Your task to perform on an android device: What's a good restaurant in Houston? Image 0: 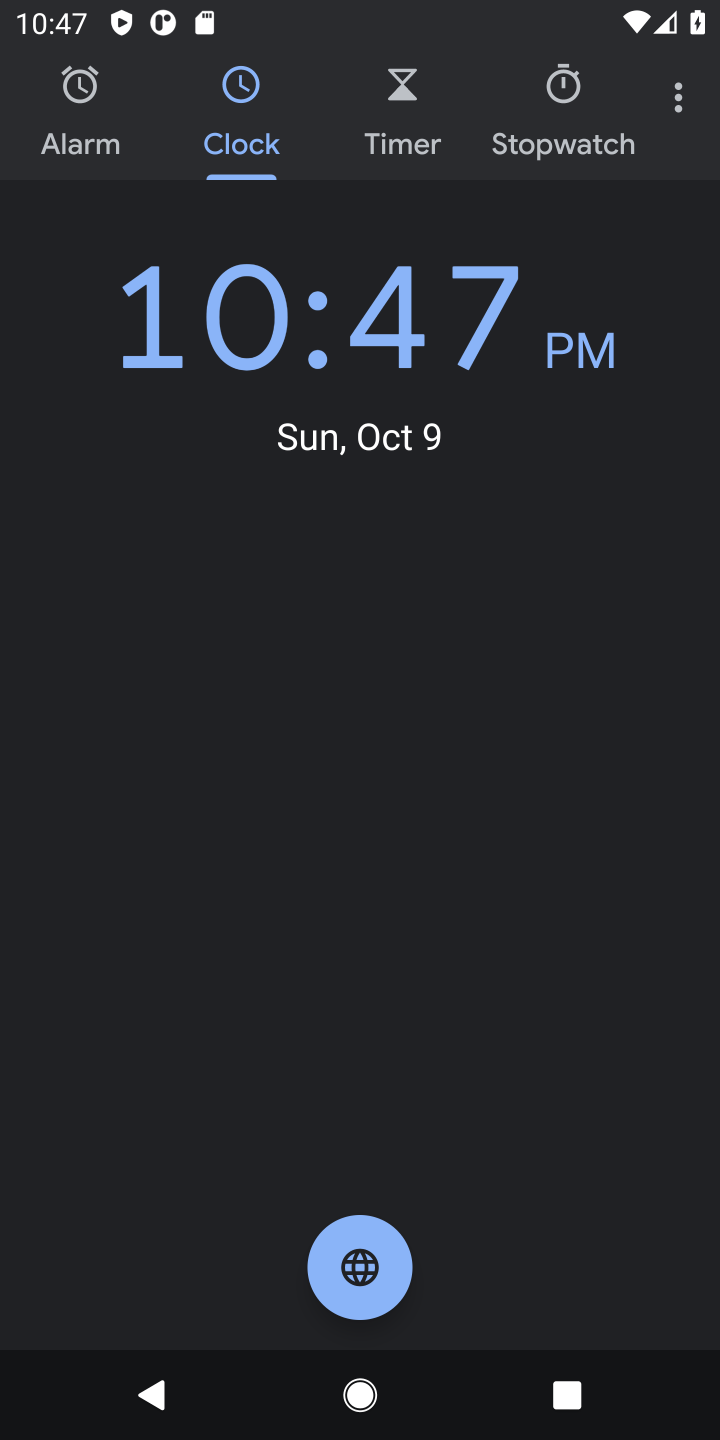
Step 0: press home button
Your task to perform on an android device: What's a good restaurant in Houston? Image 1: 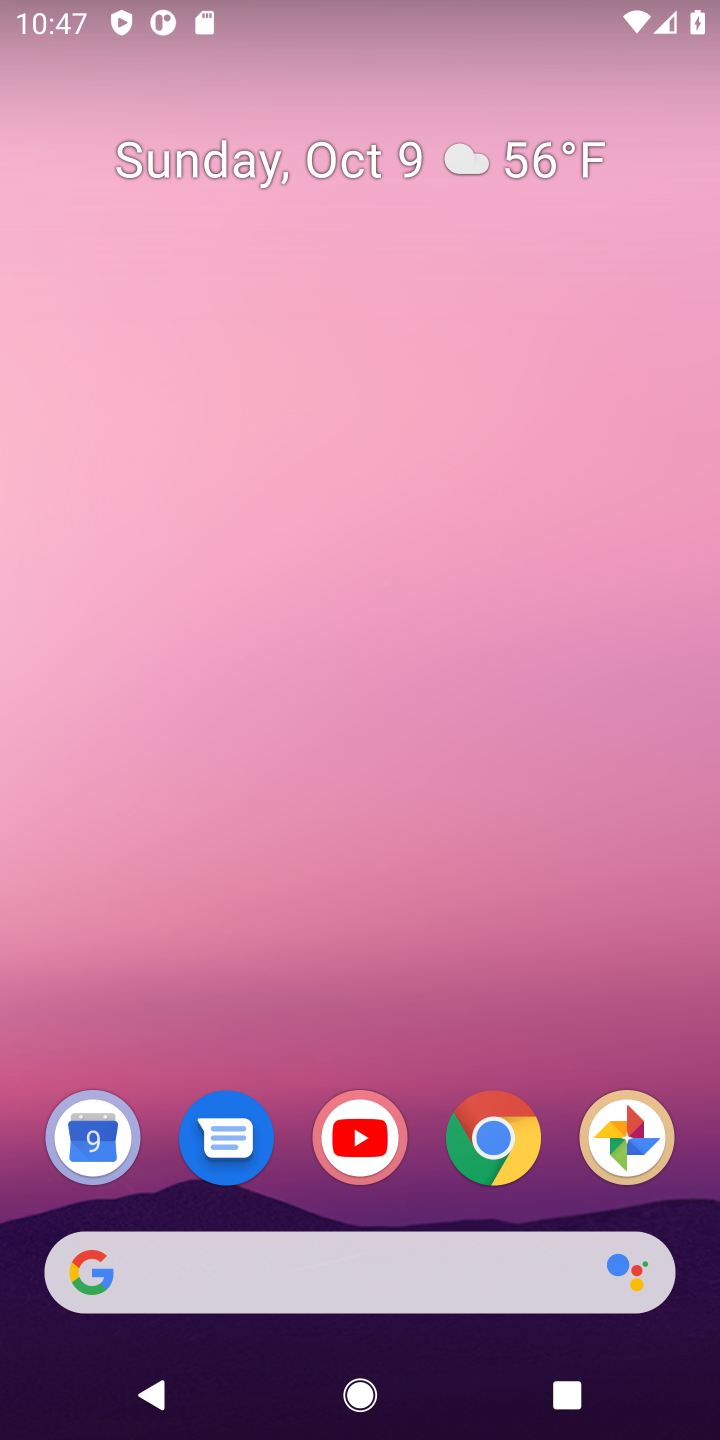
Step 1: drag from (404, 1028) to (353, 76)
Your task to perform on an android device: What's a good restaurant in Houston? Image 2: 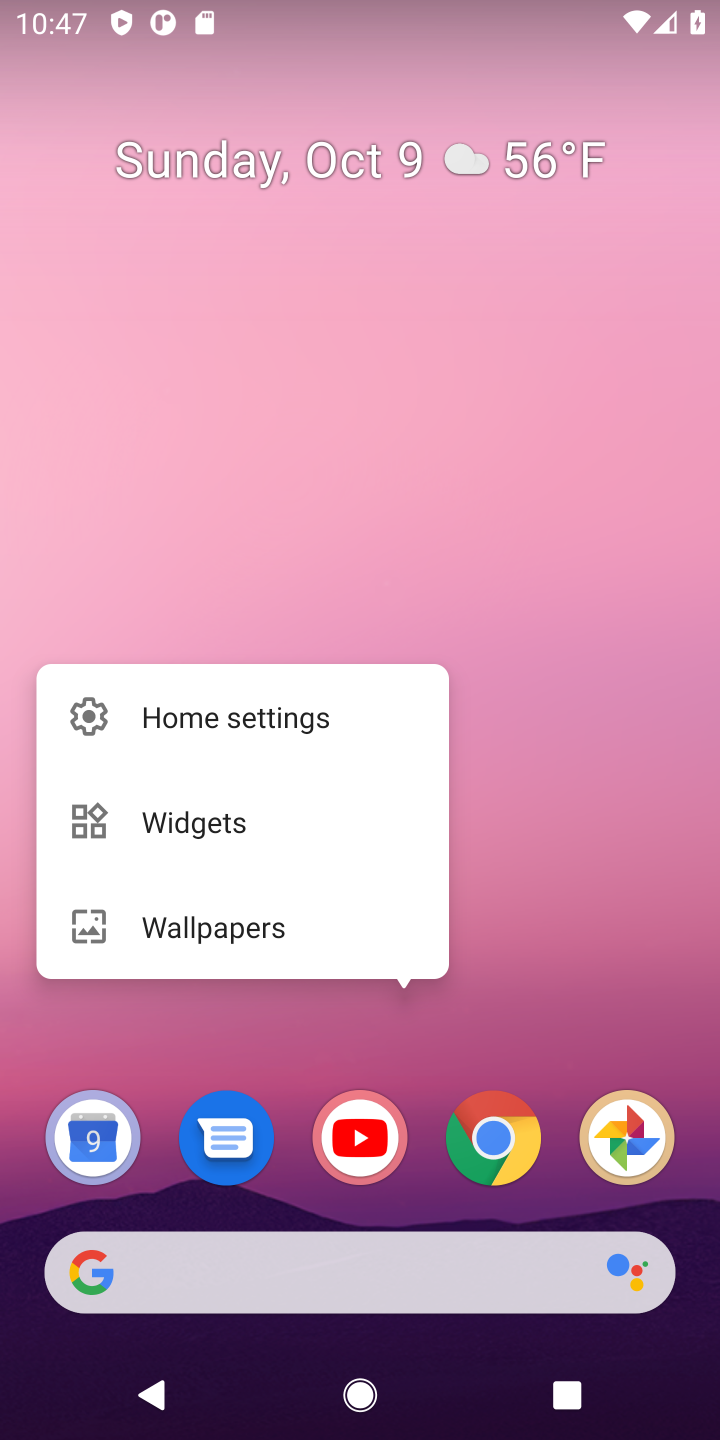
Step 2: click (498, 1001)
Your task to perform on an android device: What's a good restaurant in Houston? Image 3: 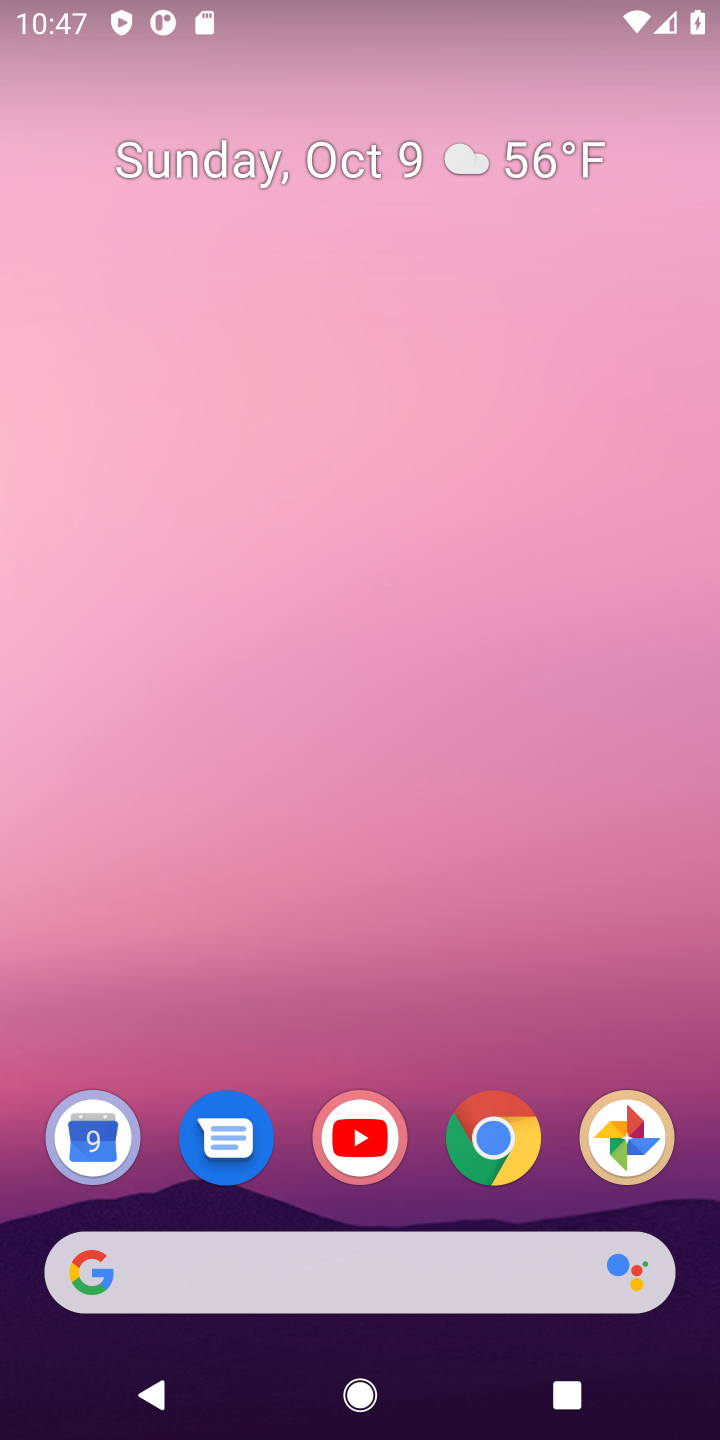
Step 3: drag from (431, 1090) to (253, 127)
Your task to perform on an android device: What's a good restaurant in Houston? Image 4: 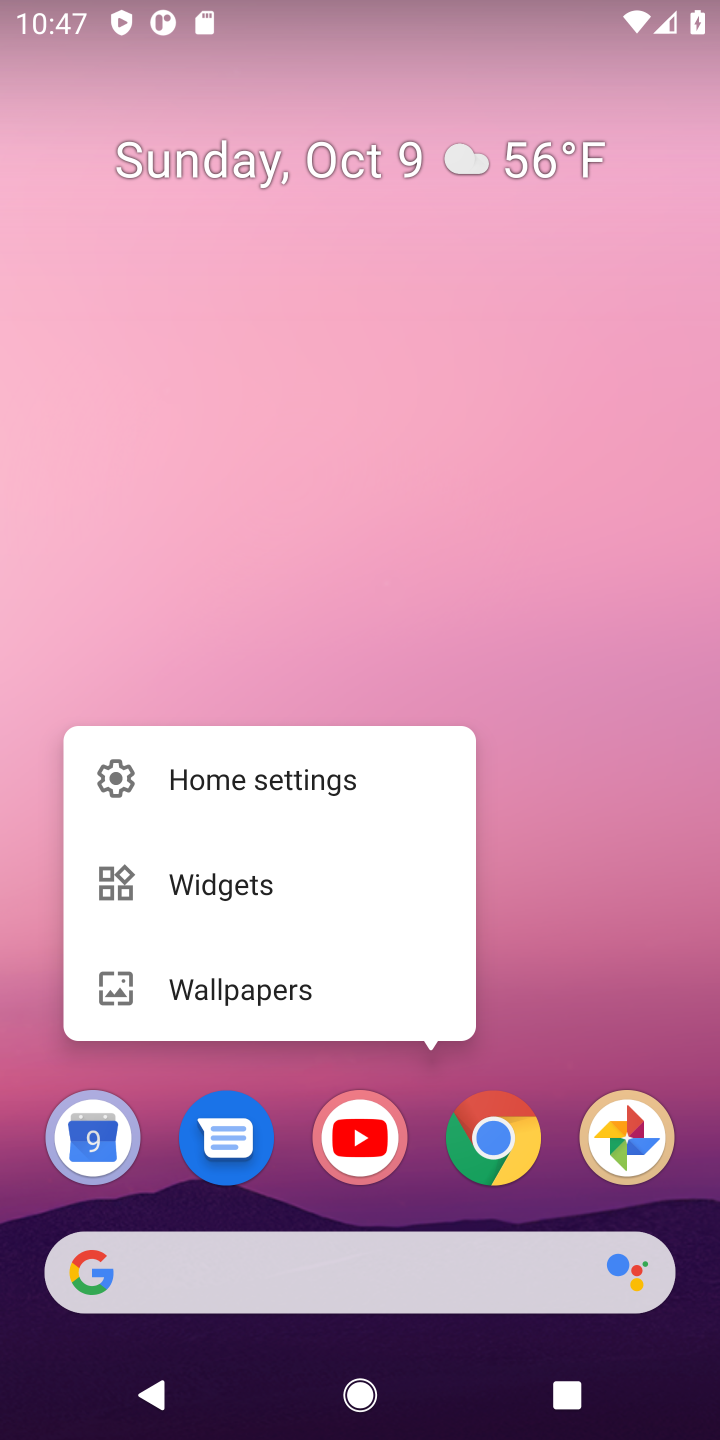
Step 4: click (434, 414)
Your task to perform on an android device: What's a good restaurant in Houston? Image 5: 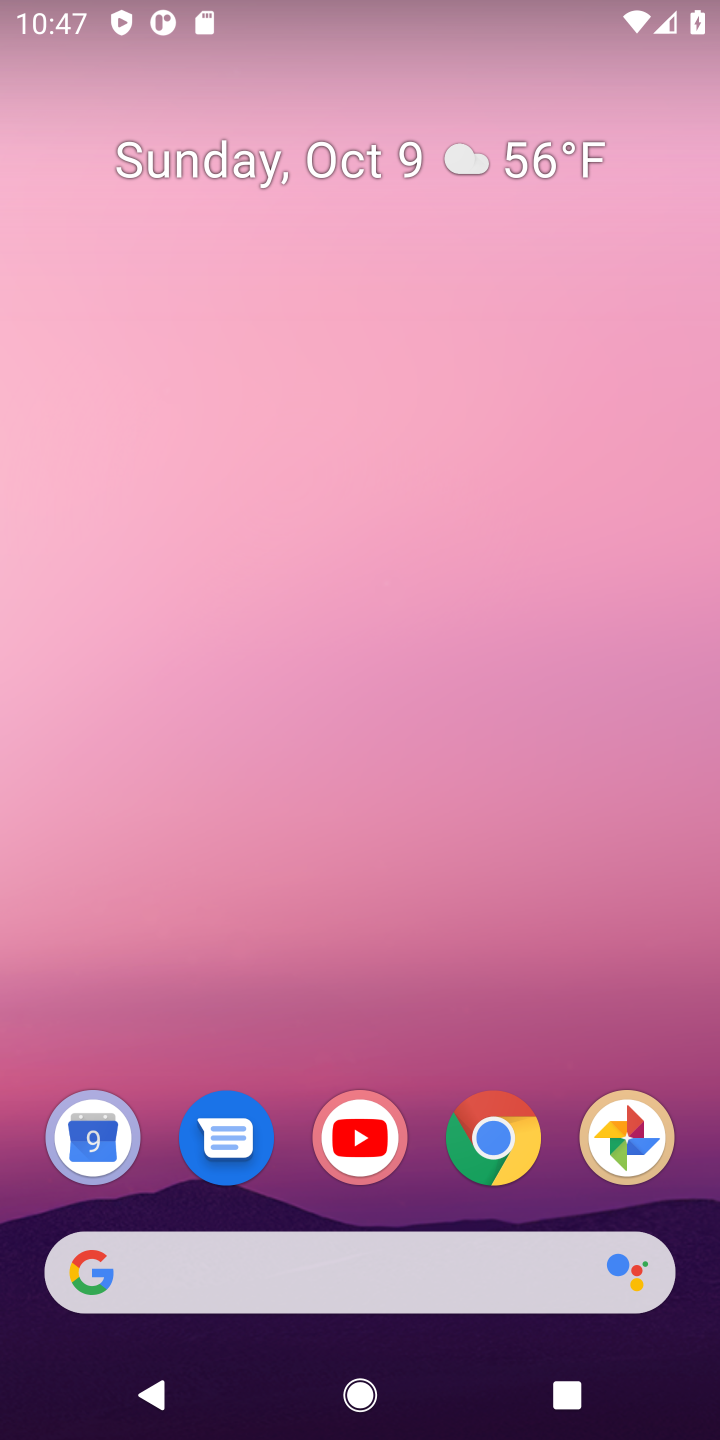
Step 5: drag from (561, 1096) to (558, 55)
Your task to perform on an android device: What's a good restaurant in Houston? Image 6: 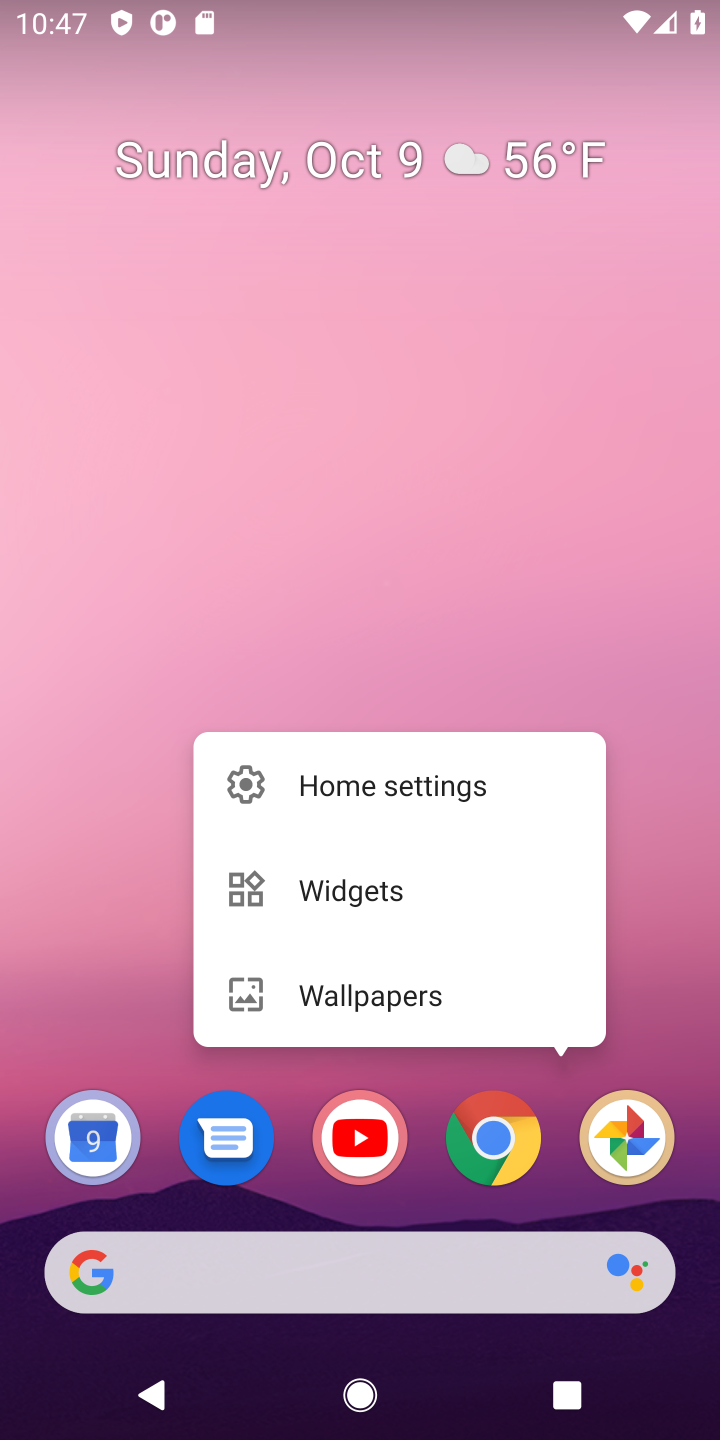
Step 6: click (649, 804)
Your task to perform on an android device: What's a good restaurant in Houston? Image 7: 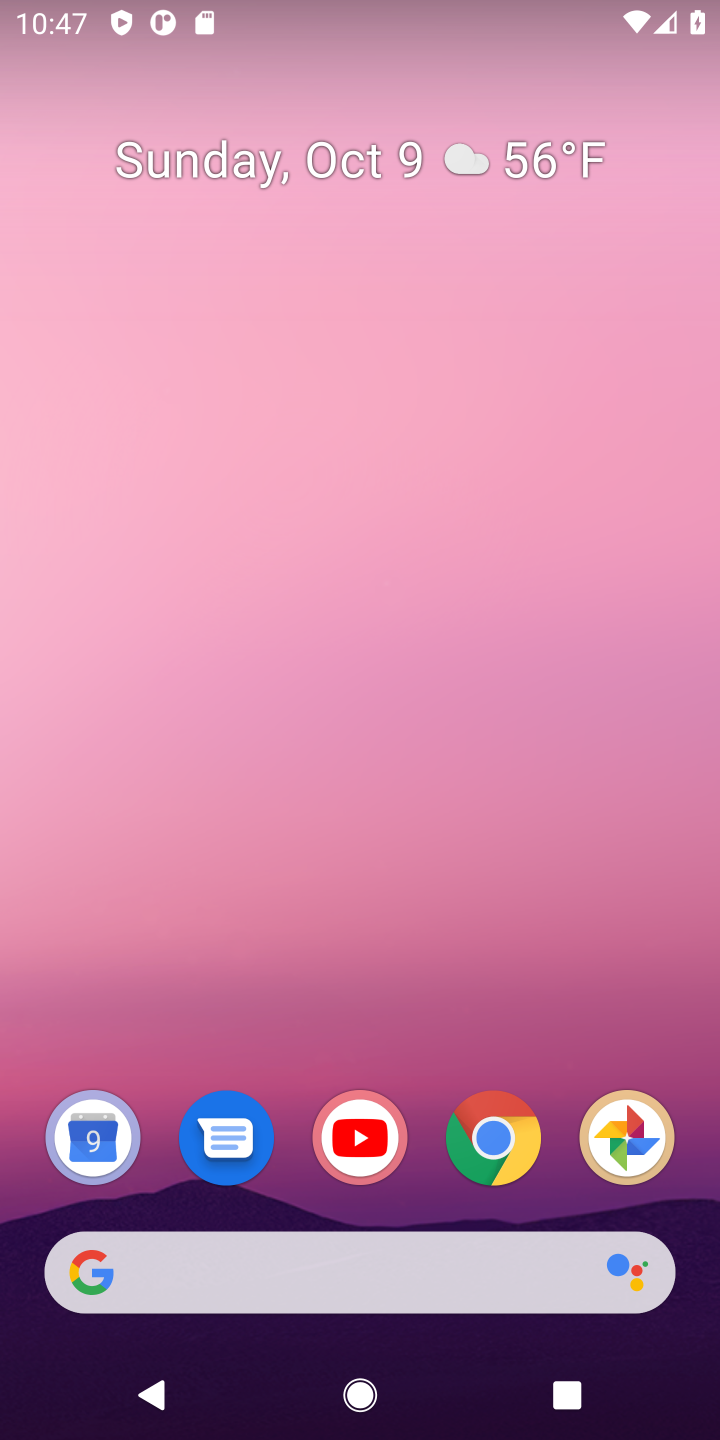
Step 7: drag from (568, 1201) to (572, 106)
Your task to perform on an android device: What's a good restaurant in Houston? Image 8: 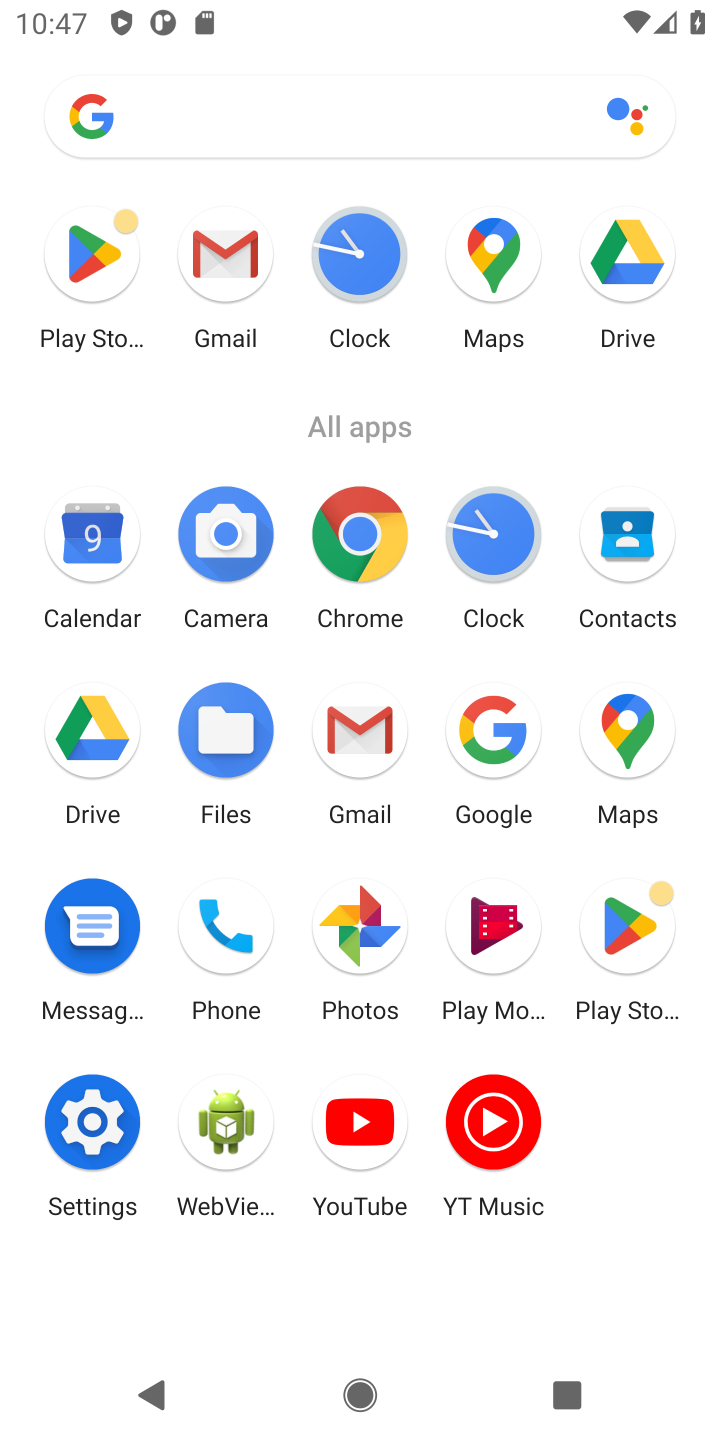
Step 8: click (347, 541)
Your task to perform on an android device: What's a good restaurant in Houston? Image 9: 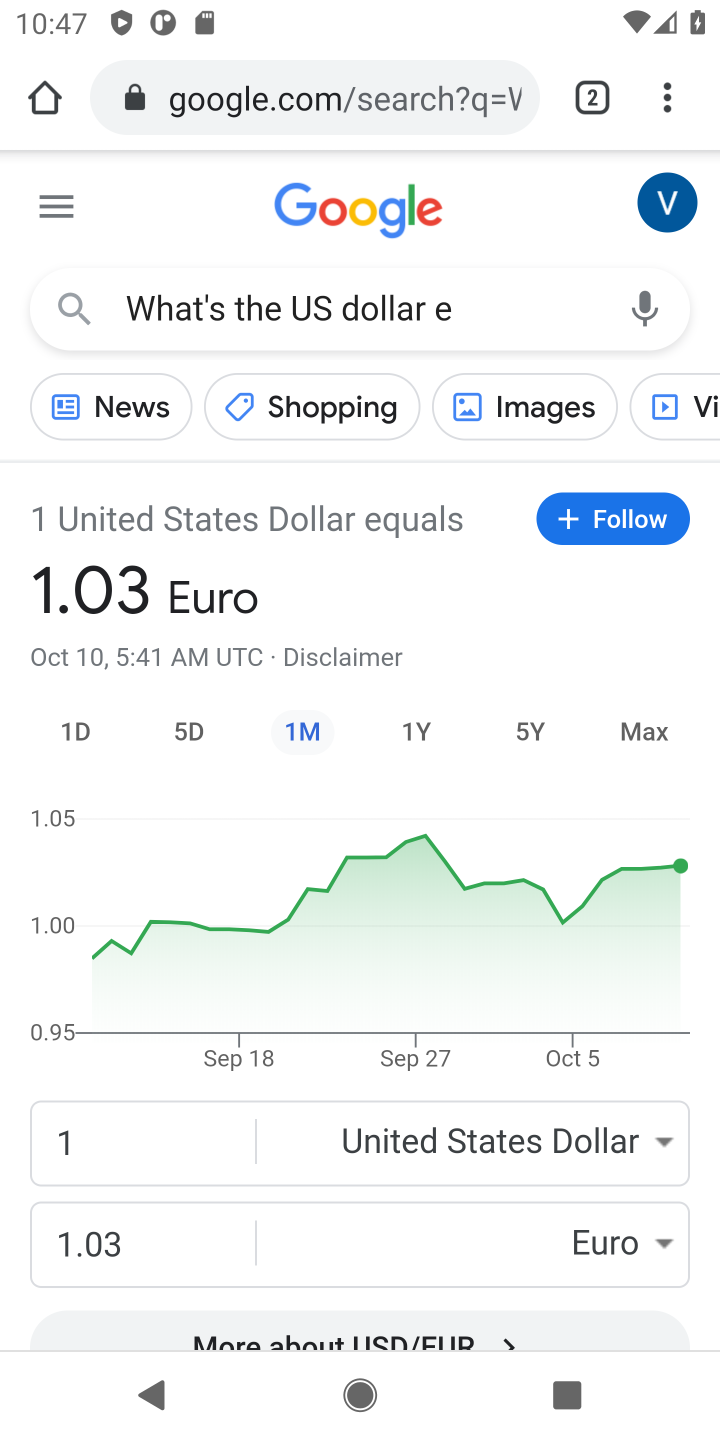
Step 9: click (247, 87)
Your task to perform on an android device: What's a good restaurant in Houston? Image 10: 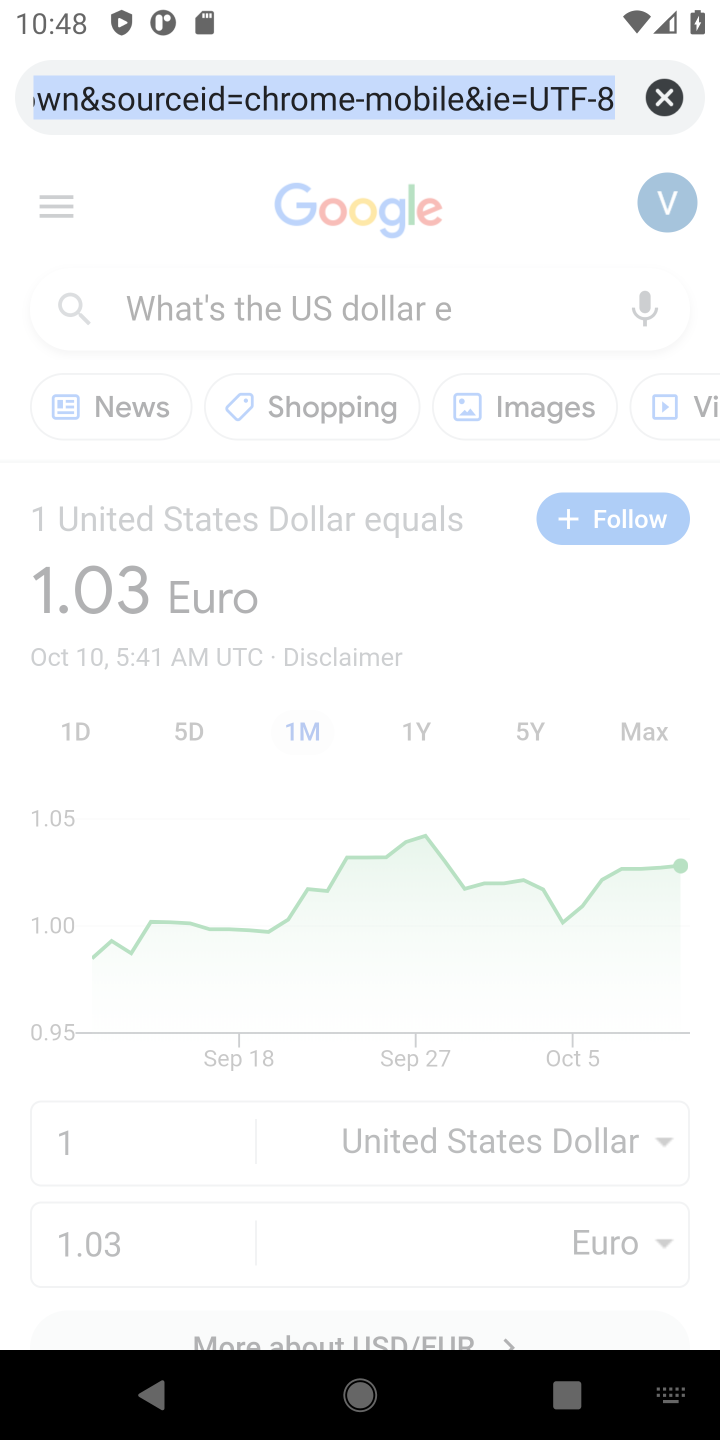
Step 10: click (671, 106)
Your task to perform on an android device: What's a good restaurant in Houston? Image 11: 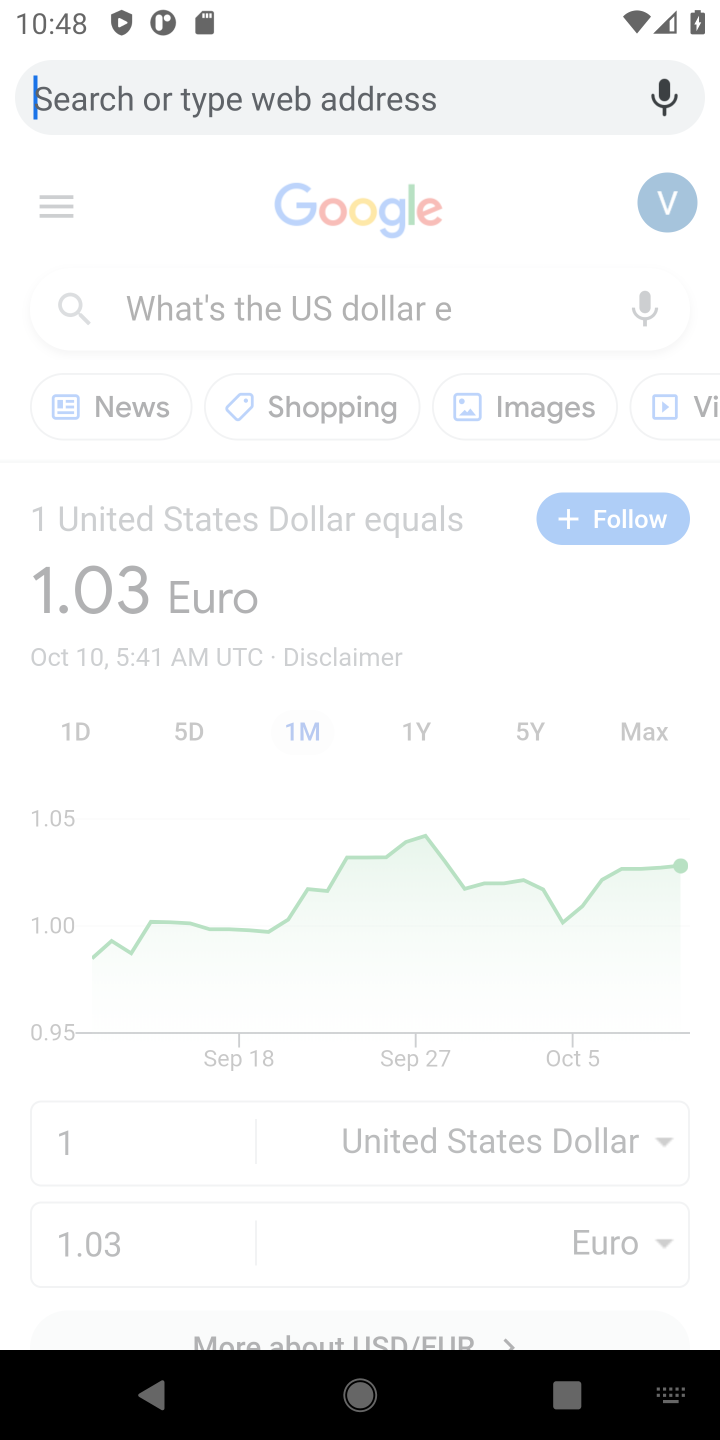
Step 11: type "What's a good restaurant in Houston?"
Your task to perform on an android device: What's a good restaurant in Houston? Image 12: 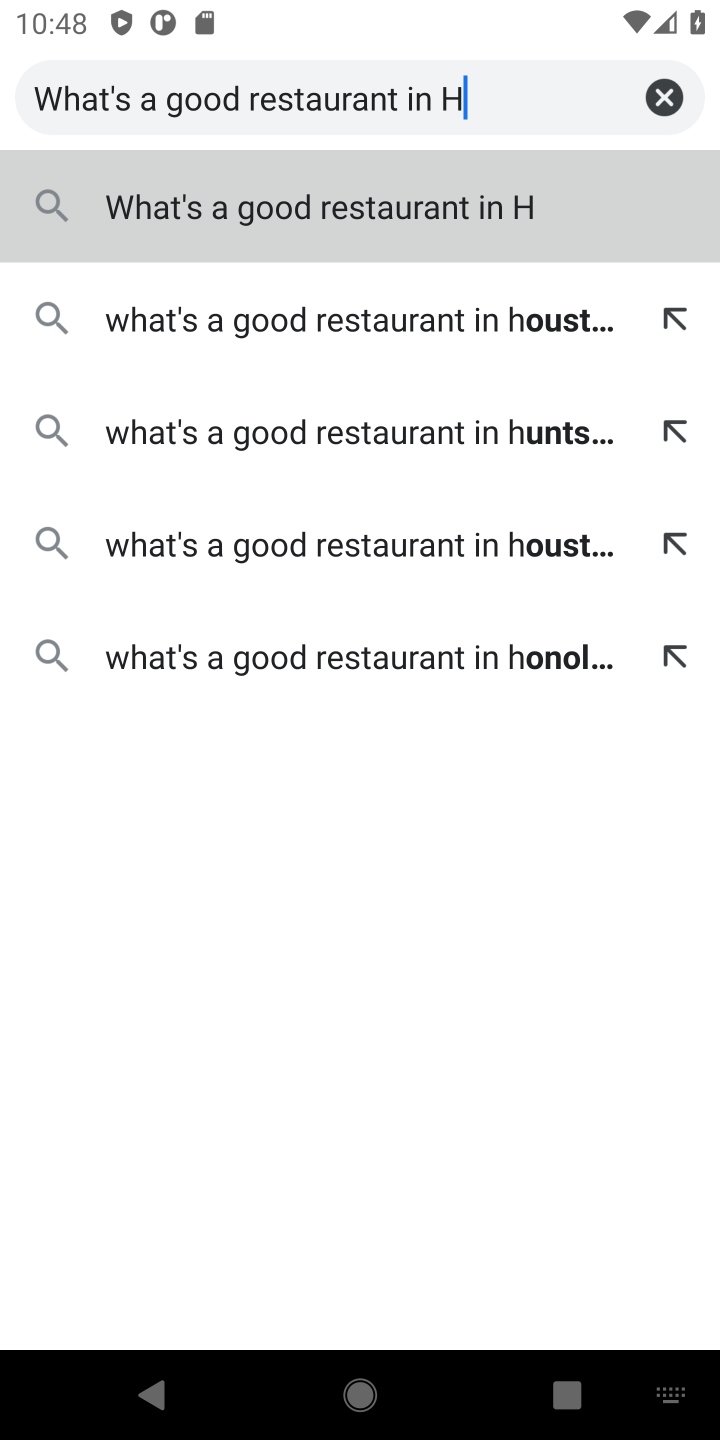
Step 12: click (317, 198)
Your task to perform on an android device: What's a good restaurant in Houston? Image 13: 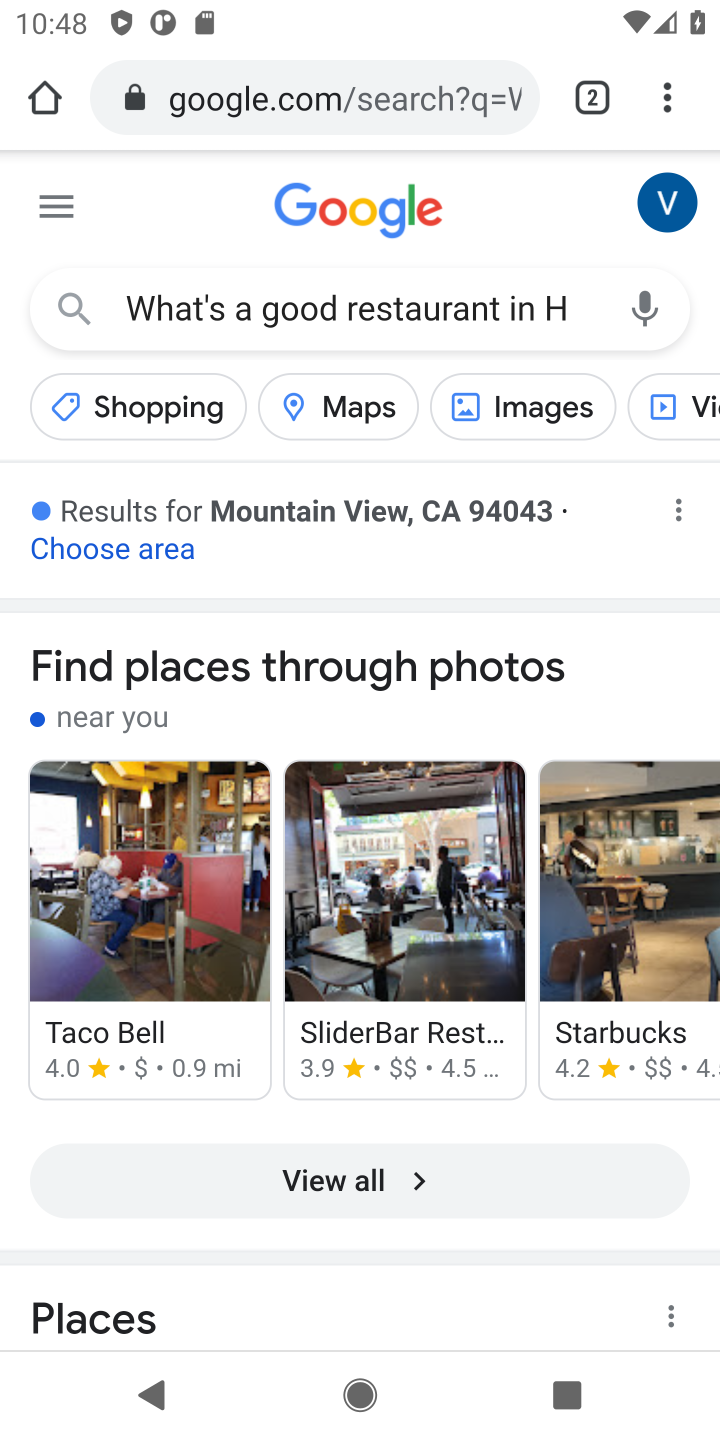
Step 13: task complete